Your task to perform on an android device: add a contact Image 0: 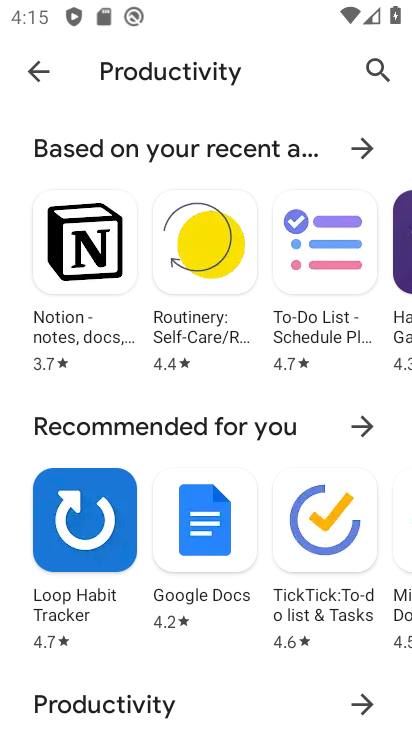
Step 0: press home button
Your task to perform on an android device: add a contact Image 1: 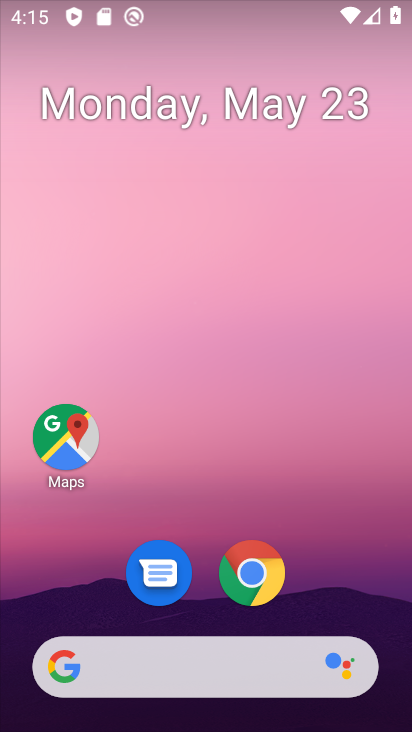
Step 1: drag from (221, 718) to (218, 96)
Your task to perform on an android device: add a contact Image 2: 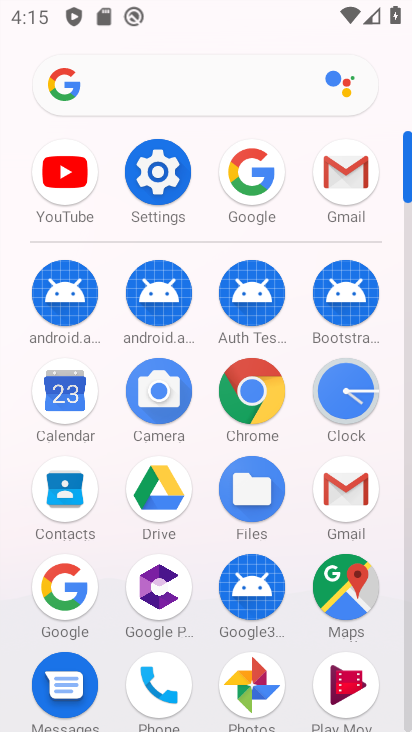
Step 2: click (62, 489)
Your task to perform on an android device: add a contact Image 3: 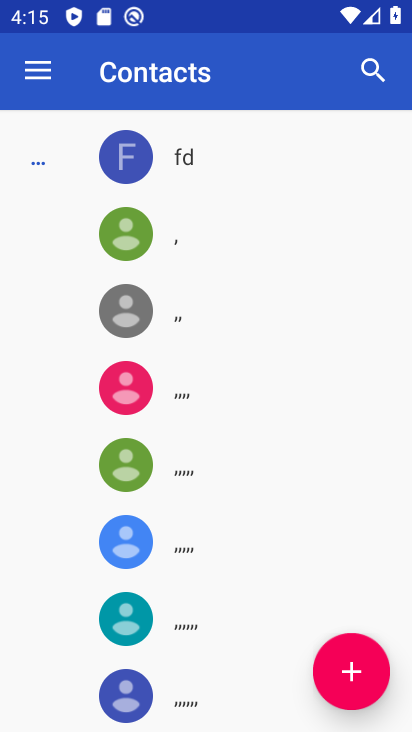
Step 3: click (351, 670)
Your task to perform on an android device: add a contact Image 4: 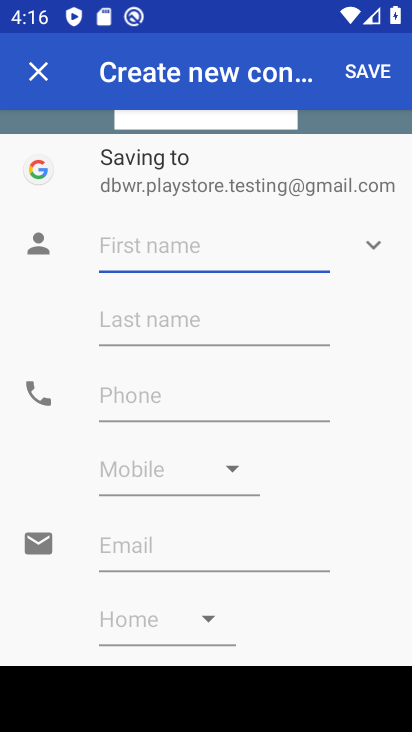
Step 4: type "najju"
Your task to perform on an android device: add a contact Image 5: 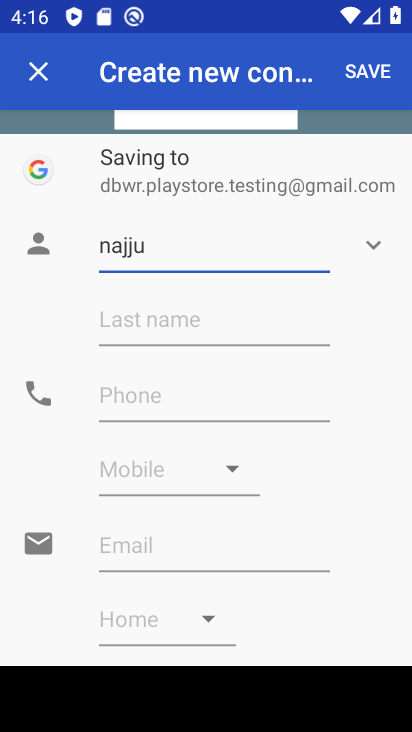
Step 5: click (138, 389)
Your task to perform on an android device: add a contact Image 6: 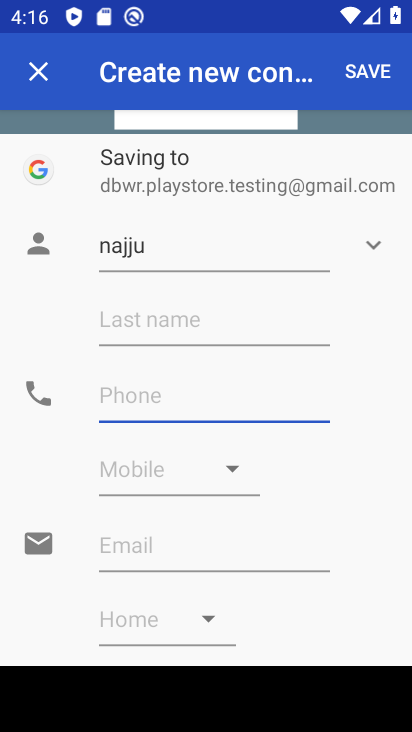
Step 6: type "8848484"
Your task to perform on an android device: add a contact Image 7: 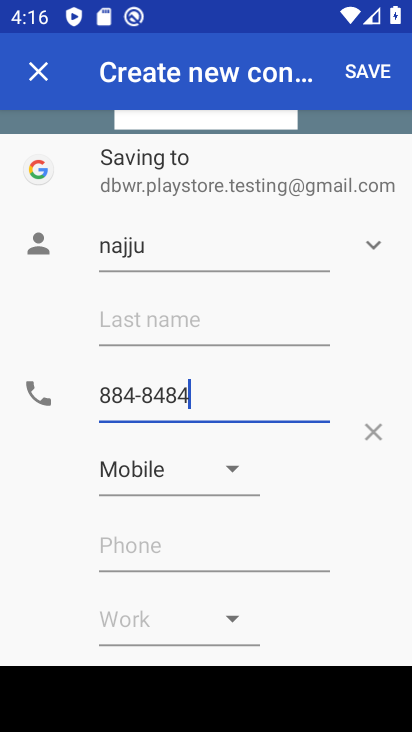
Step 7: click (362, 69)
Your task to perform on an android device: add a contact Image 8: 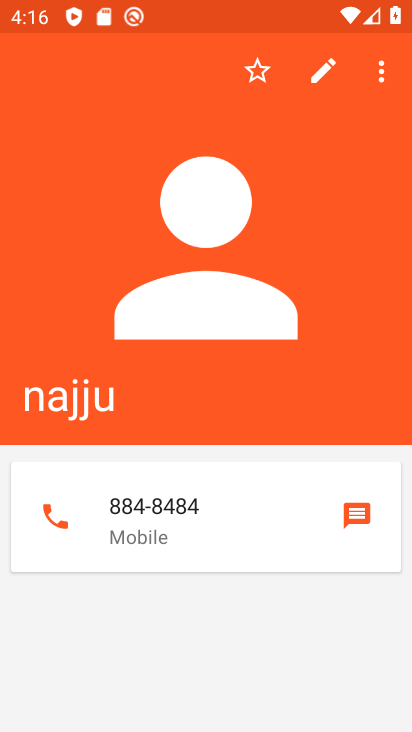
Step 8: task complete